Your task to perform on an android device: toggle notification dots Image 0: 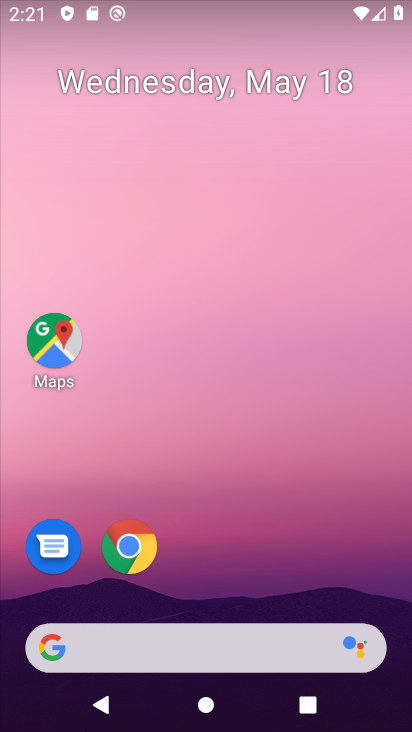
Step 0: drag from (228, 725) to (228, 238)
Your task to perform on an android device: toggle notification dots Image 1: 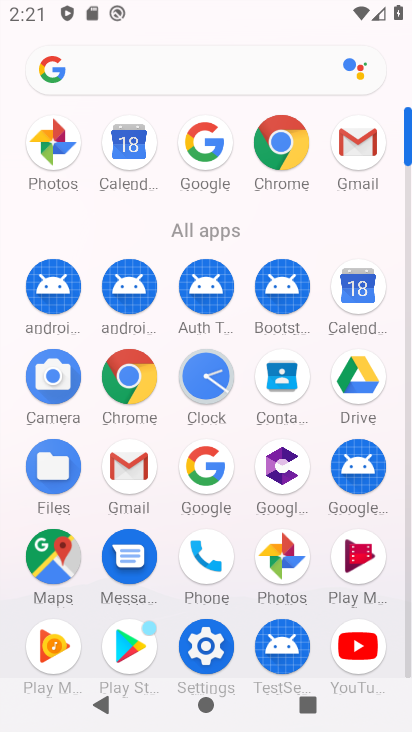
Step 1: click (205, 638)
Your task to perform on an android device: toggle notification dots Image 2: 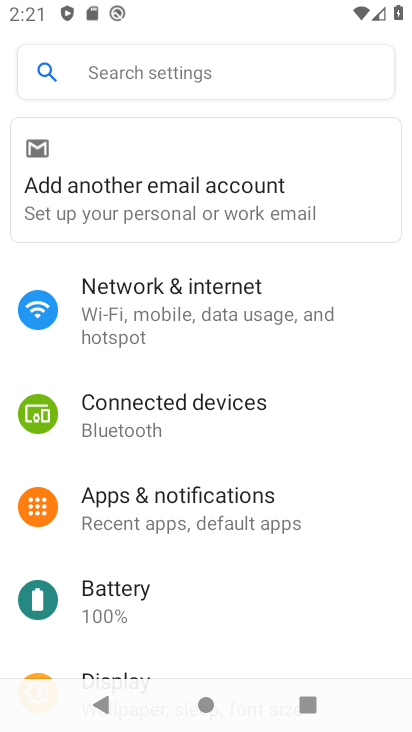
Step 2: click (169, 499)
Your task to perform on an android device: toggle notification dots Image 3: 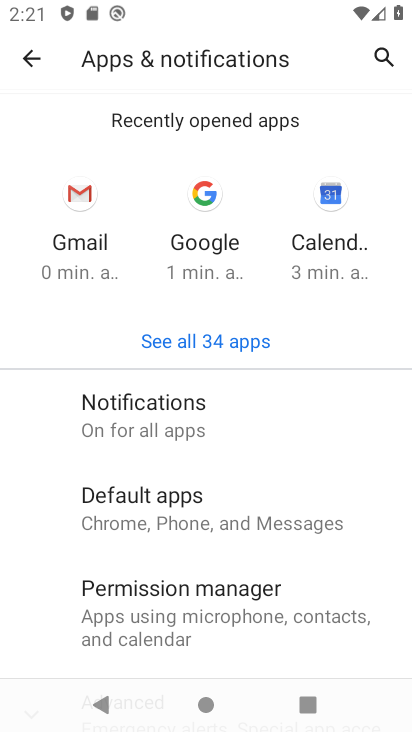
Step 3: click (137, 413)
Your task to perform on an android device: toggle notification dots Image 4: 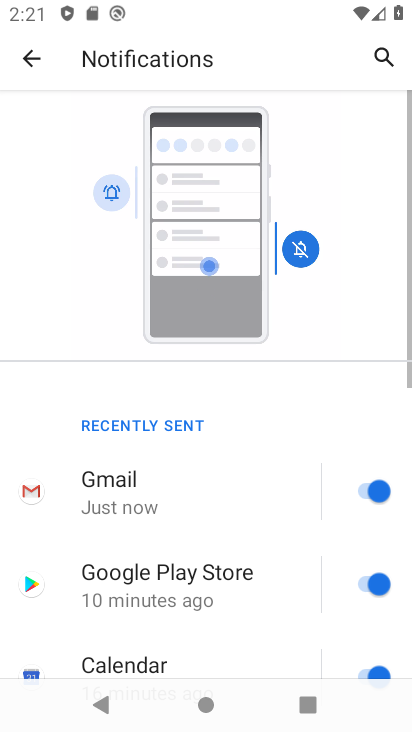
Step 4: drag from (212, 639) to (219, 278)
Your task to perform on an android device: toggle notification dots Image 5: 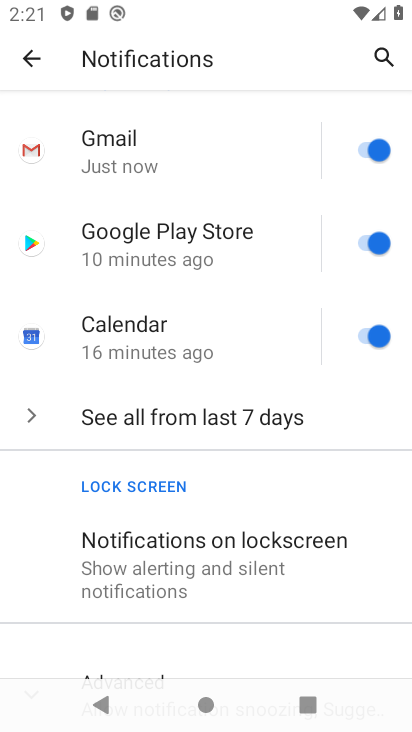
Step 5: drag from (206, 647) to (207, 264)
Your task to perform on an android device: toggle notification dots Image 6: 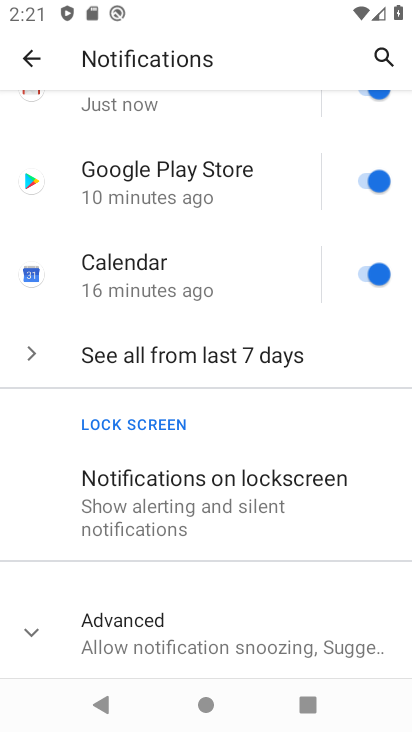
Step 6: click (200, 639)
Your task to perform on an android device: toggle notification dots Image 7: 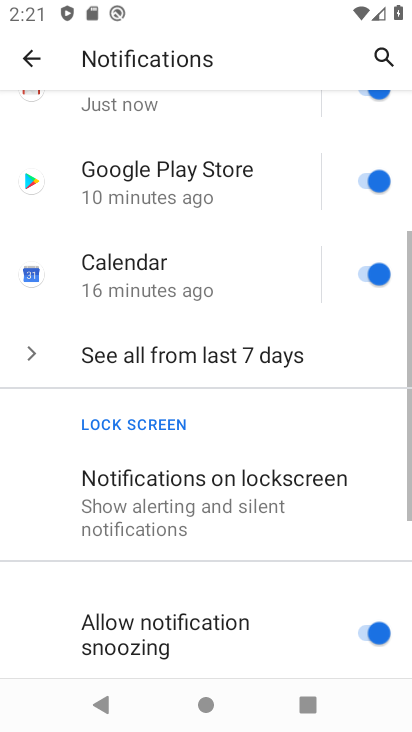
Step 7: drag from (201, 634) to (206, 227)
Your task to perform on an android device: toggle notification dots Image 8: 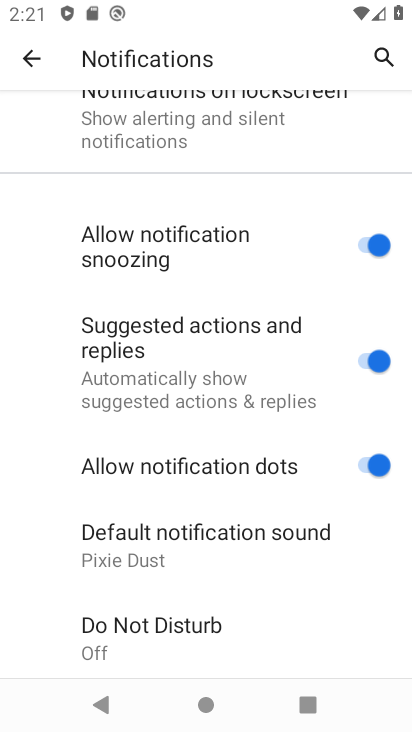
Step 8: click (361, 456)
Your task to perform on an android device: toggle notification dots Image 9: 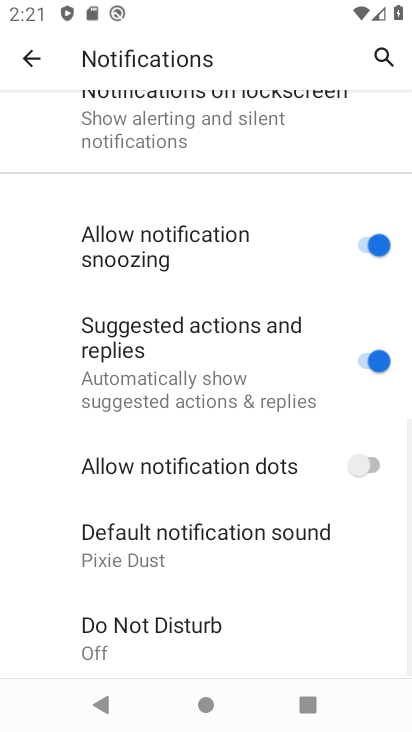
Step 9: task complete